Your task to perform on an android device: check out phone information Image 0: 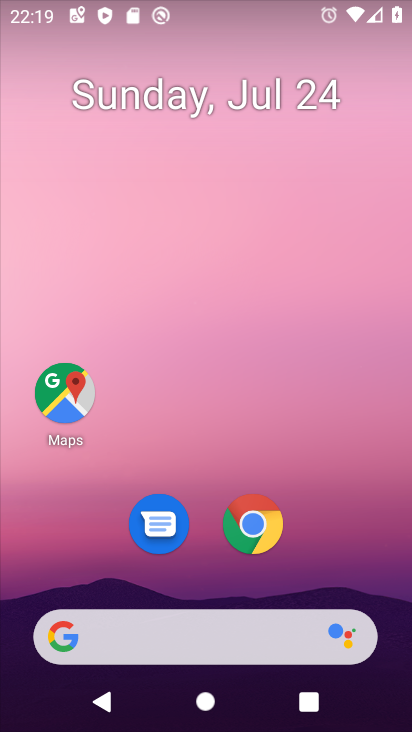
Step 0: drag from (277, 624) to (334, 37)
Your task to perform on an android device: check out phone information Image 1: 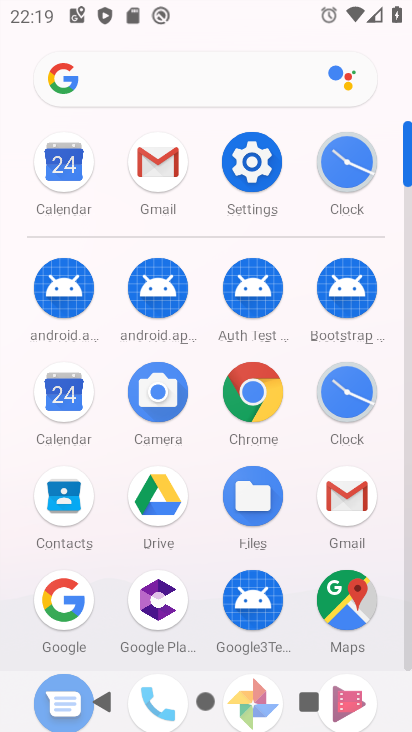
Step 1: click (256, 162)
Your task to perform on an android device: check out phone information Image 2: 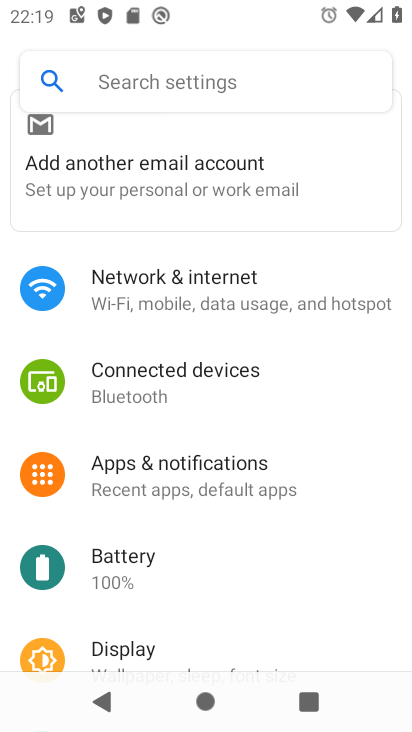
Step 2: drag from (221, 611) to (352, 8)
Your task to perform on an android device: check out phone information Image 3: 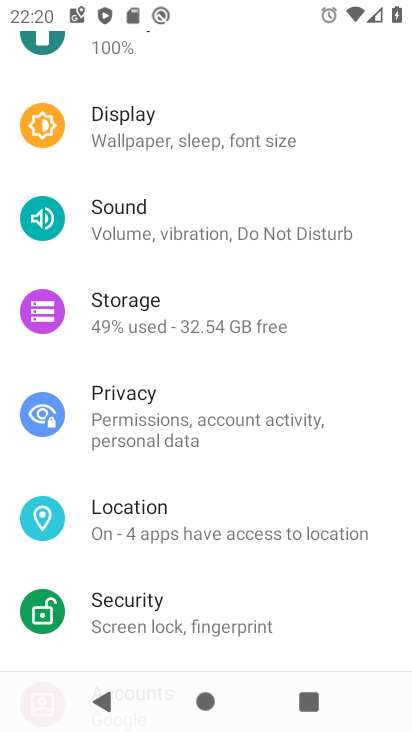
Step 3: drag from (195, 596) to (343, 27)
Your task to perform on an android device: check out phone information Image 4: 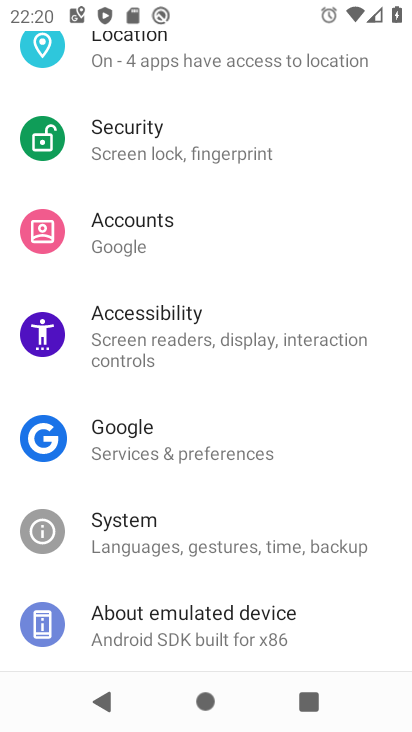
Step 4: click (186, 627)
Your task to perform on an android device: check out phone information Image 5: 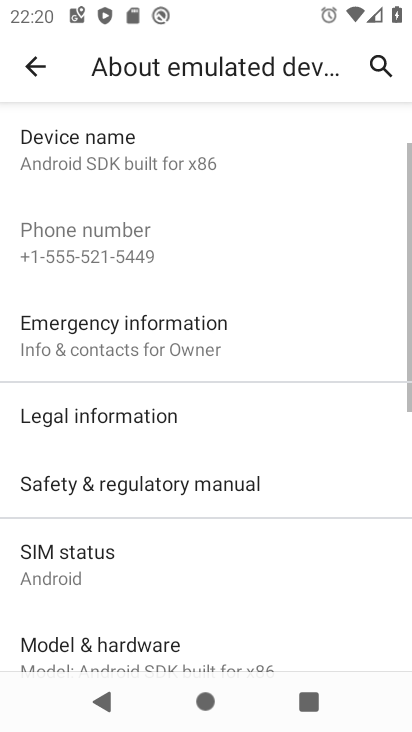
Step 5: task complete